Your task to perform on an android device: Clear the cart on walmart.com. Add "bose soundsport free" to the cart on walmart.com, then select checkout. Image 0: 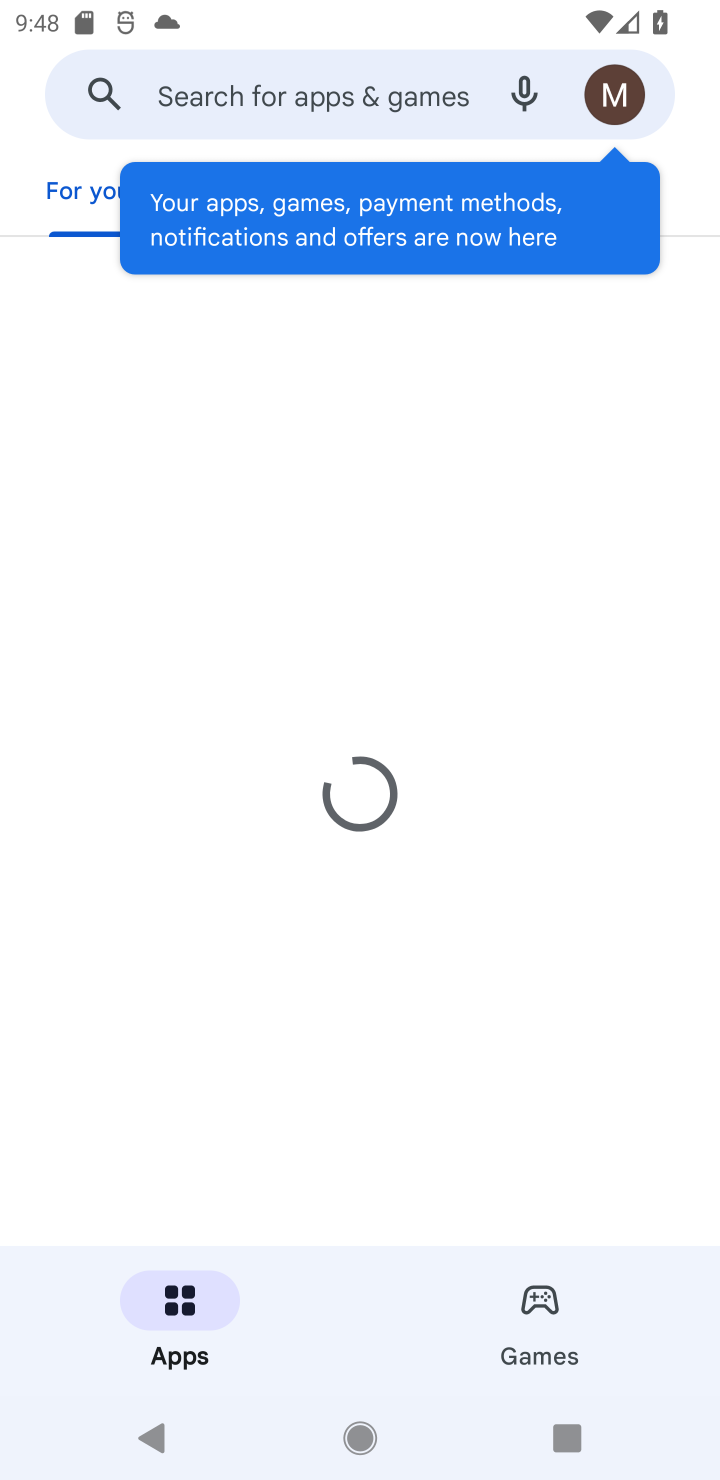
Step 0: press home button
Your task to perform on an android device: Clear the cart on walmart.com. Add "bose soundsport free" to the cart on walmart.com, then select checkout. Image 1: 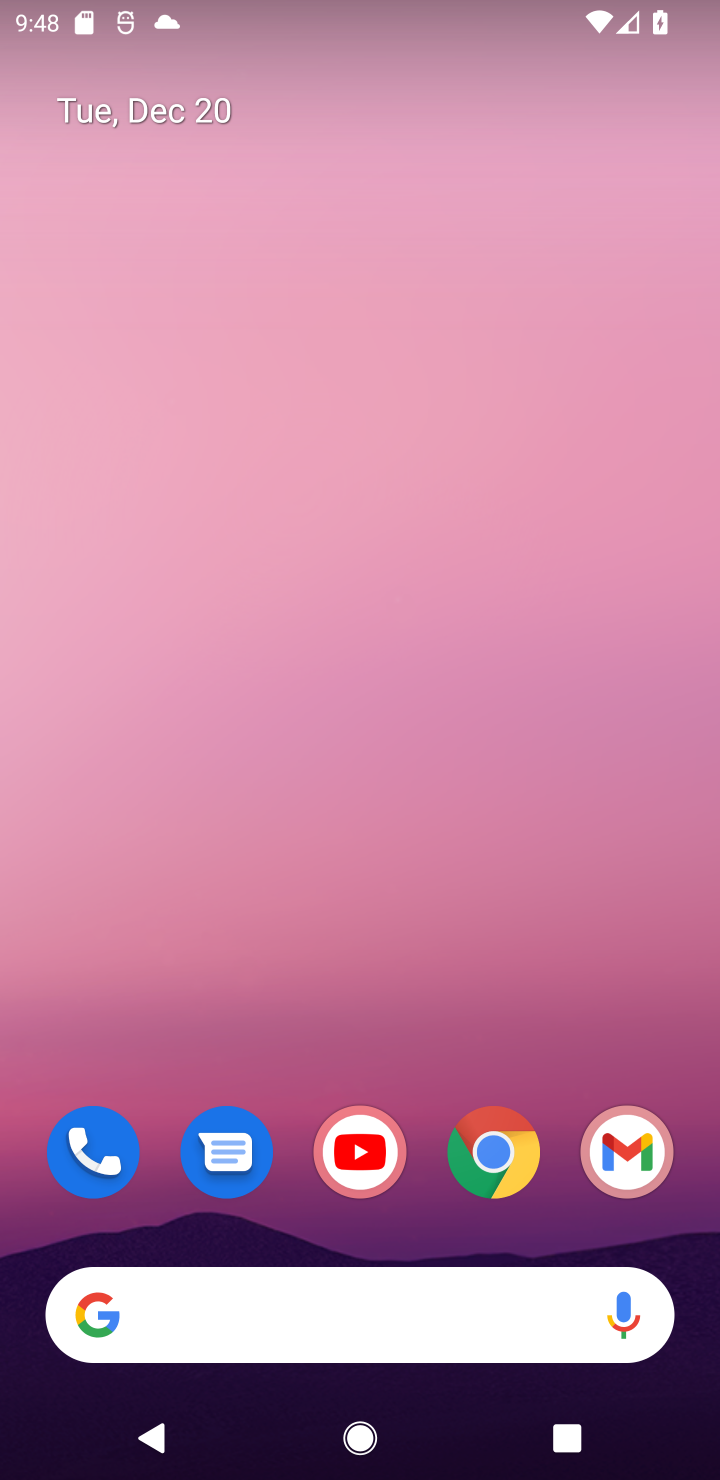
Step 1: click (495, 1130)
Your task to perform on an android device: Clear the cart on walmart.com. Add "bose soundsport free" to the cart on walmart.com, then select checkout. Image 2: 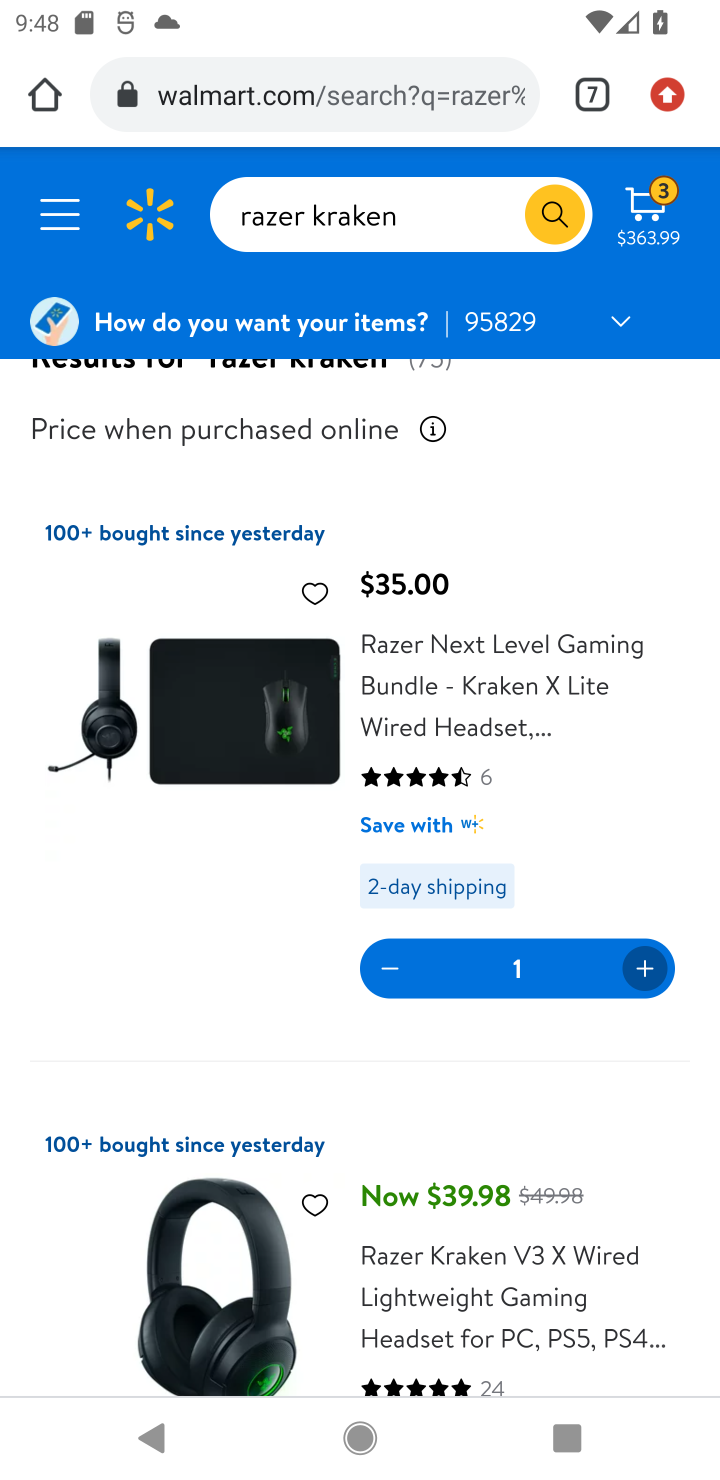
Step 2: click (666, 204)
Your task to perform on an android device: Clear the cart on walmart.com. Add "bose soundsport free" to the cart on walmart.com, then select checkout. Image 3: 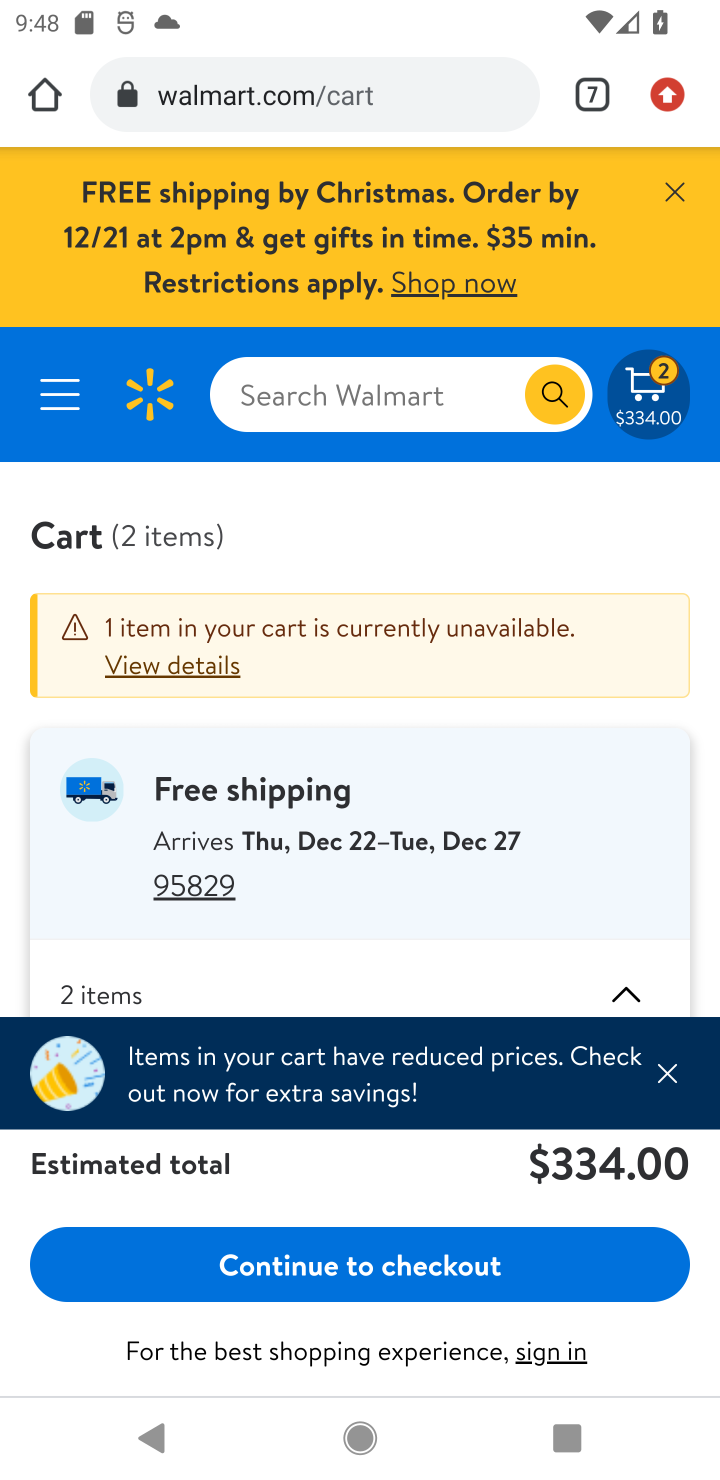
Step 3: click (667, 1079)
Your task to perform on an android device: Clear the cart on walmart.com. Add "bose soundsport free" to the cart on walmart.com, then select checkout. Image 4: 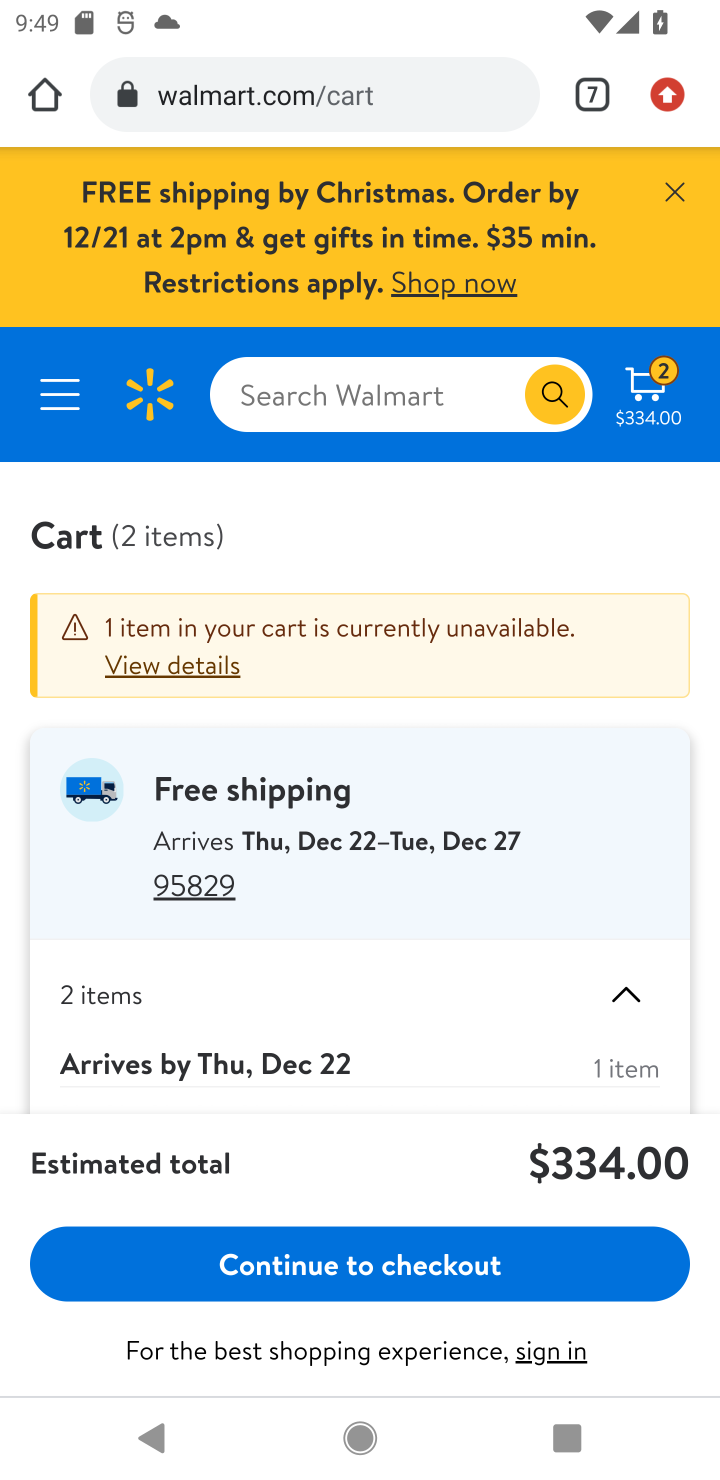
Step 4: drag from (307, 1025) to (221, 547)
Your task to perform on an android device: Clear the cart on walmart.com. Add "bose soundsport free" to the cart on walmart.com, then select checkout. Image 5: 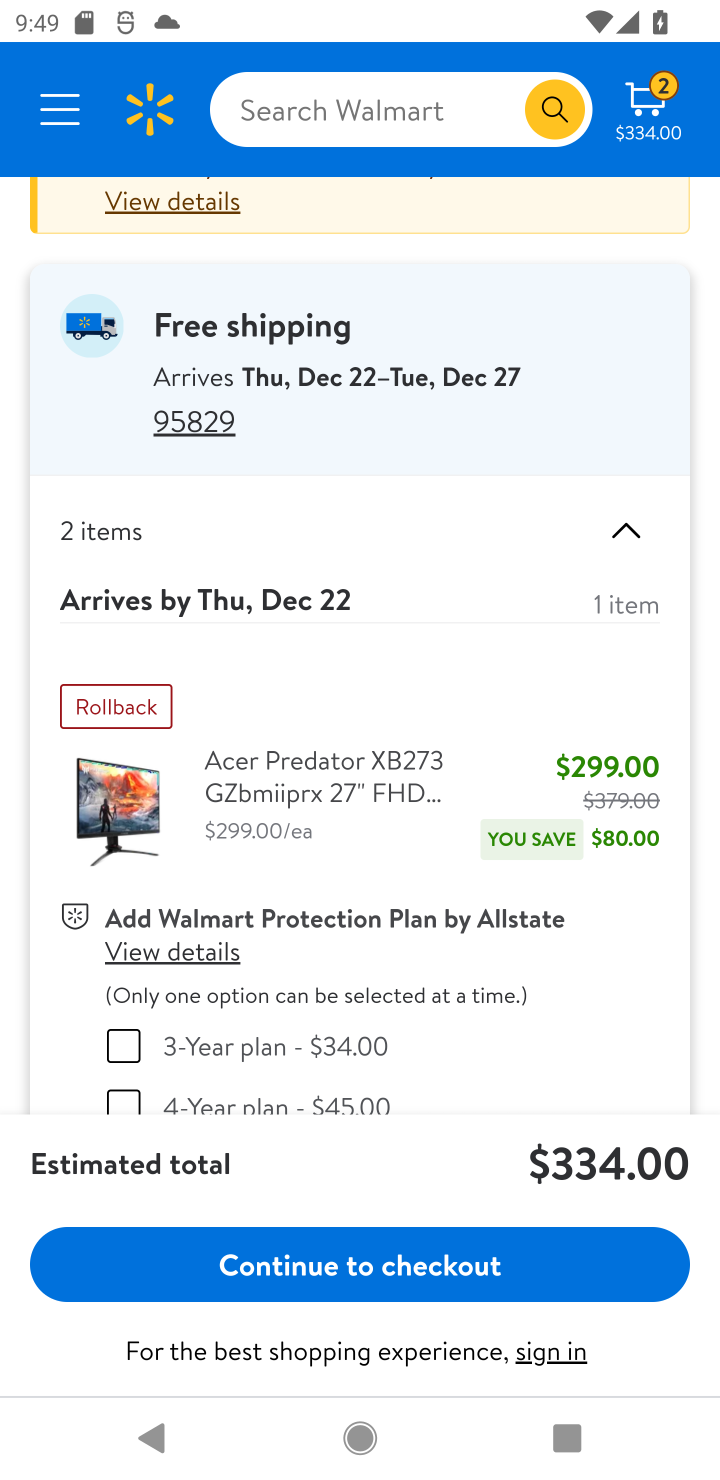
Step 5: drag from (317, 906) to (510, 5)
Your task to perform on an android device: Clear the cart on walmart.com. Add "bose soundsport free" to the cart on walmart.com, then select checkout. Image 6: 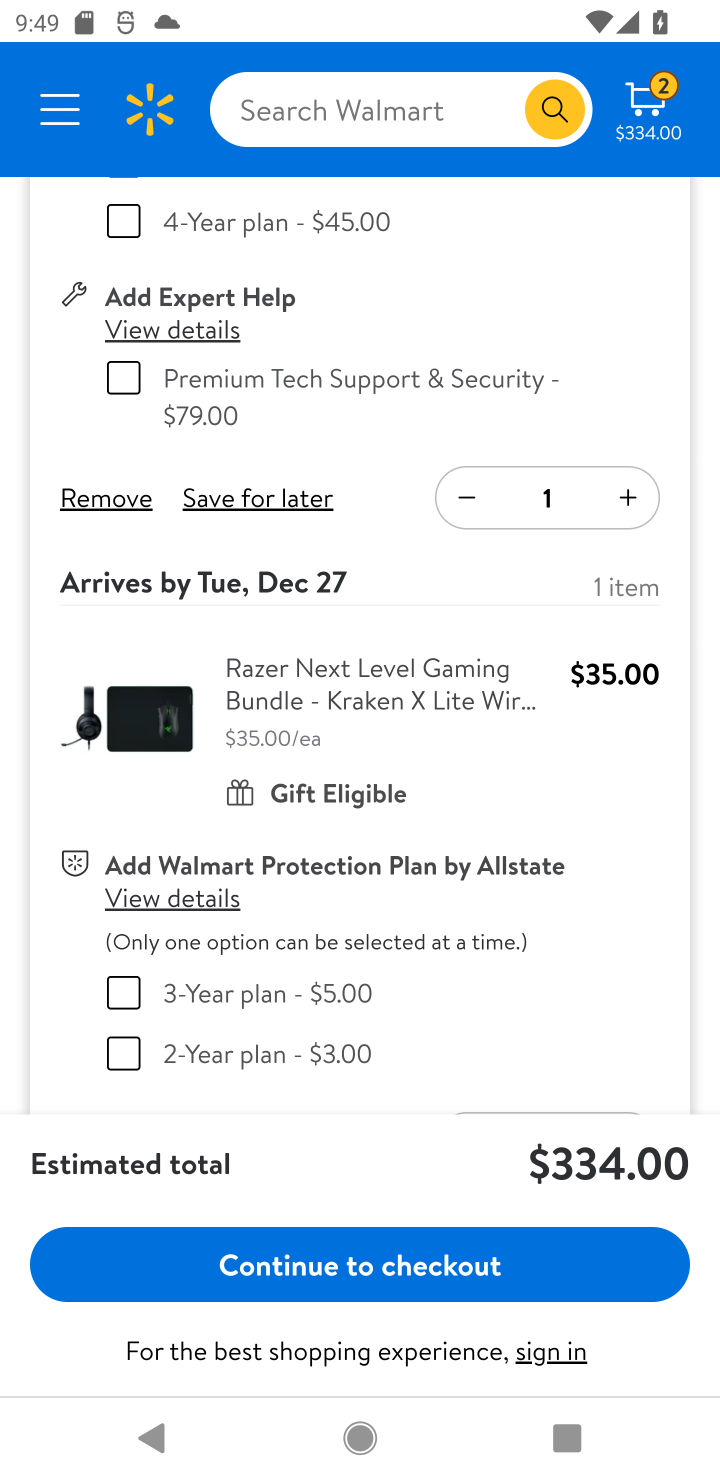
Step 6: click (99, 497)
Your task to perform on an android device: Clear the cart on walmart.com. Add "bose soundsport free" to the cart on walmart.com, then select checkout. Image 7: 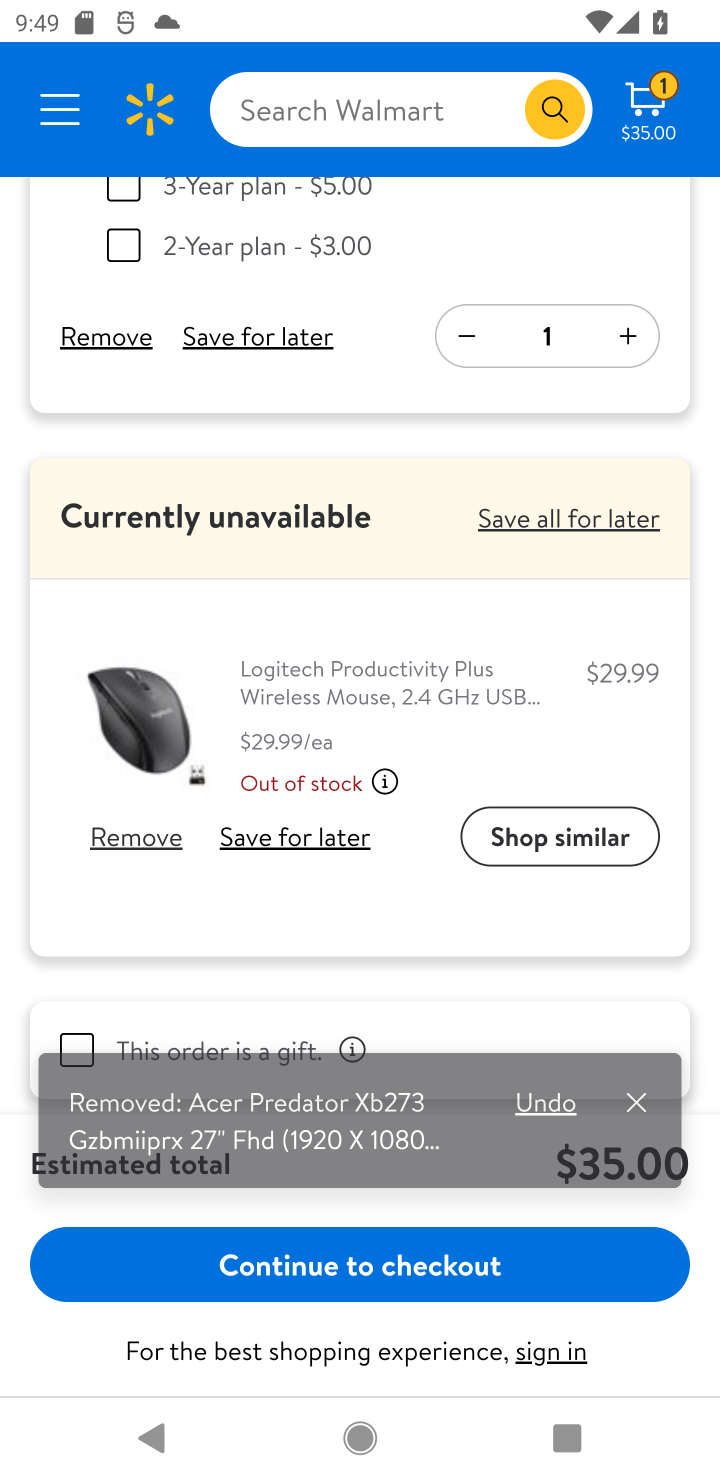
Step 7: click (99, 331)
Your task to perform on an android device: Clear the cart on walmart.com. Add "bose soundsport free" to the cart on walmart.com, then select checkout. Image 8: 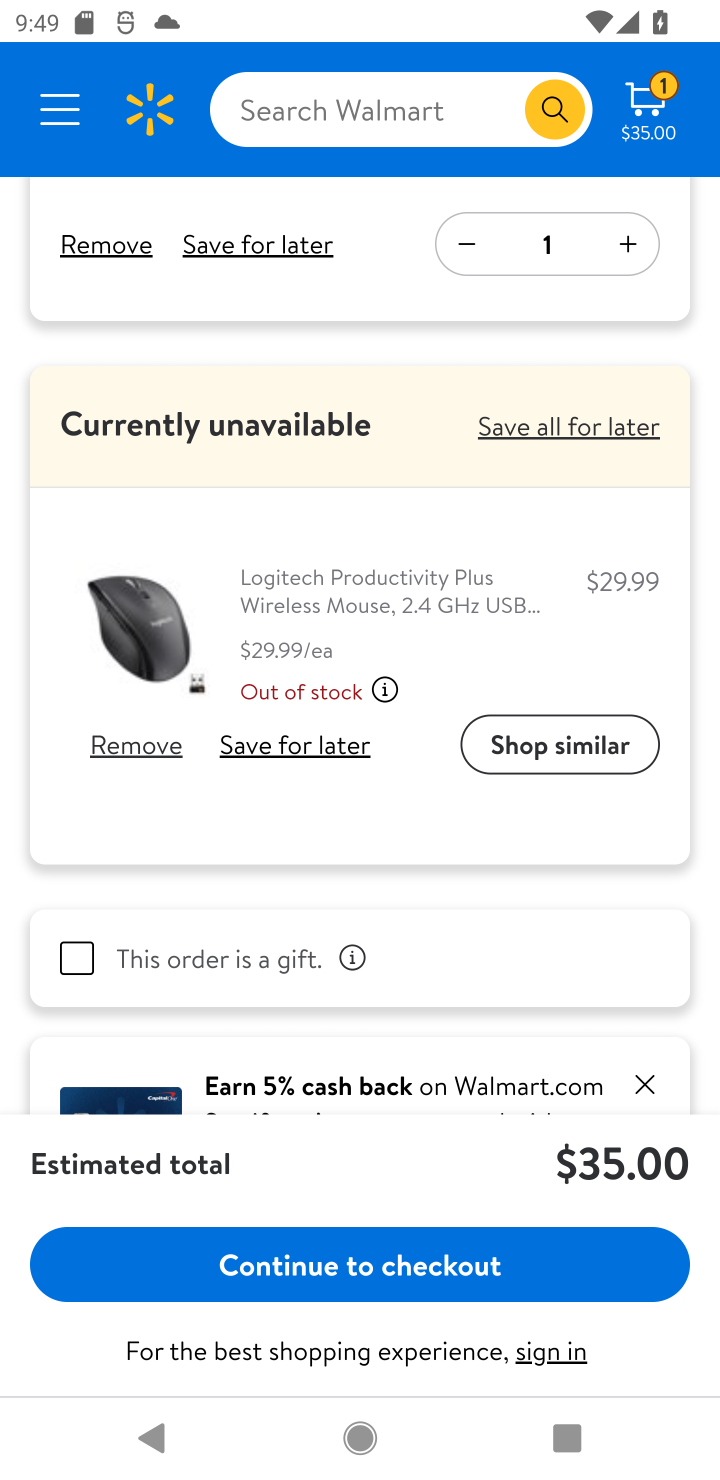
Step 8: click (113, 244)
Your task to perform on an android device: Clear the cart on walmart.com. Add "bose soundsport free" to the cart on walmart.com, then select checkout. Image 9: 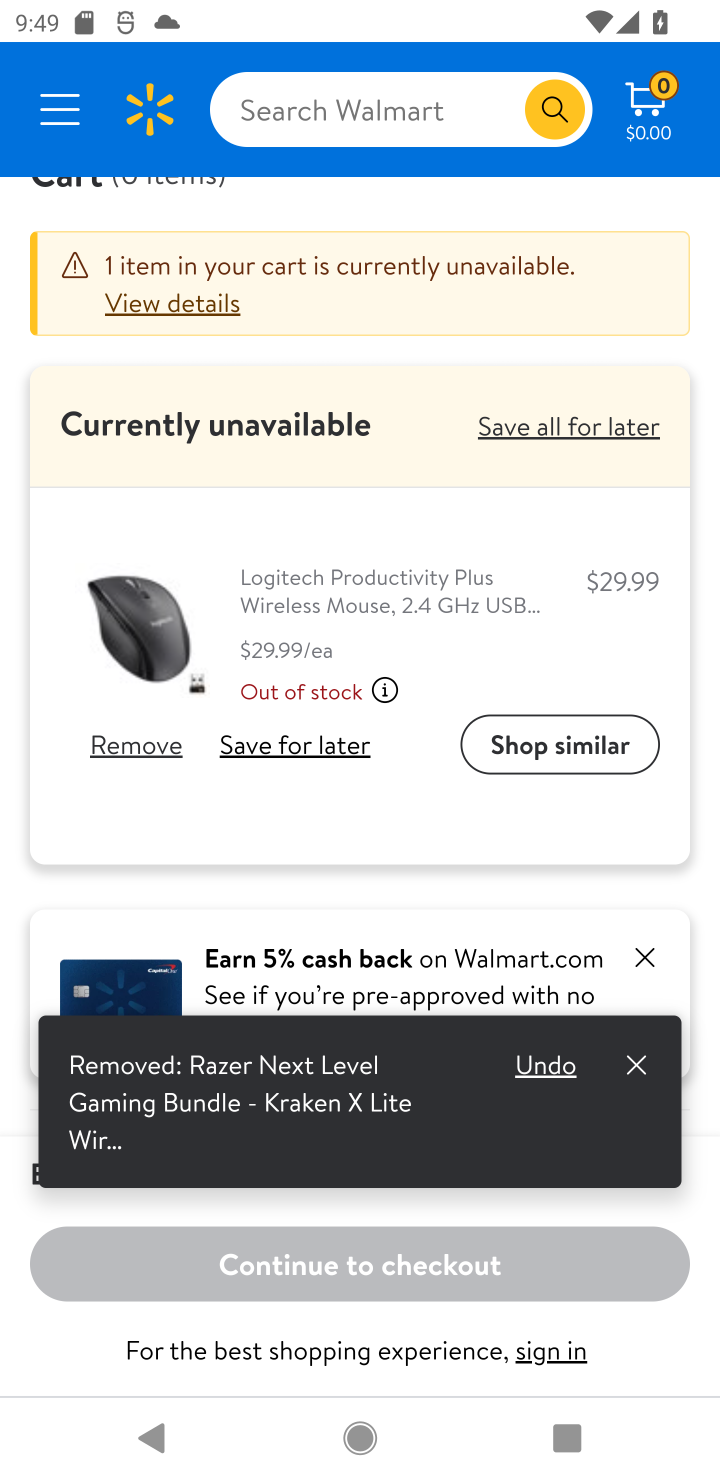
Step 9: click (103, 746)
Your task to perform on an android device: Clear the cart on walmart.com. Add "bose soundsport free" to the cart on walmart.com, then select checkout. Image 10: 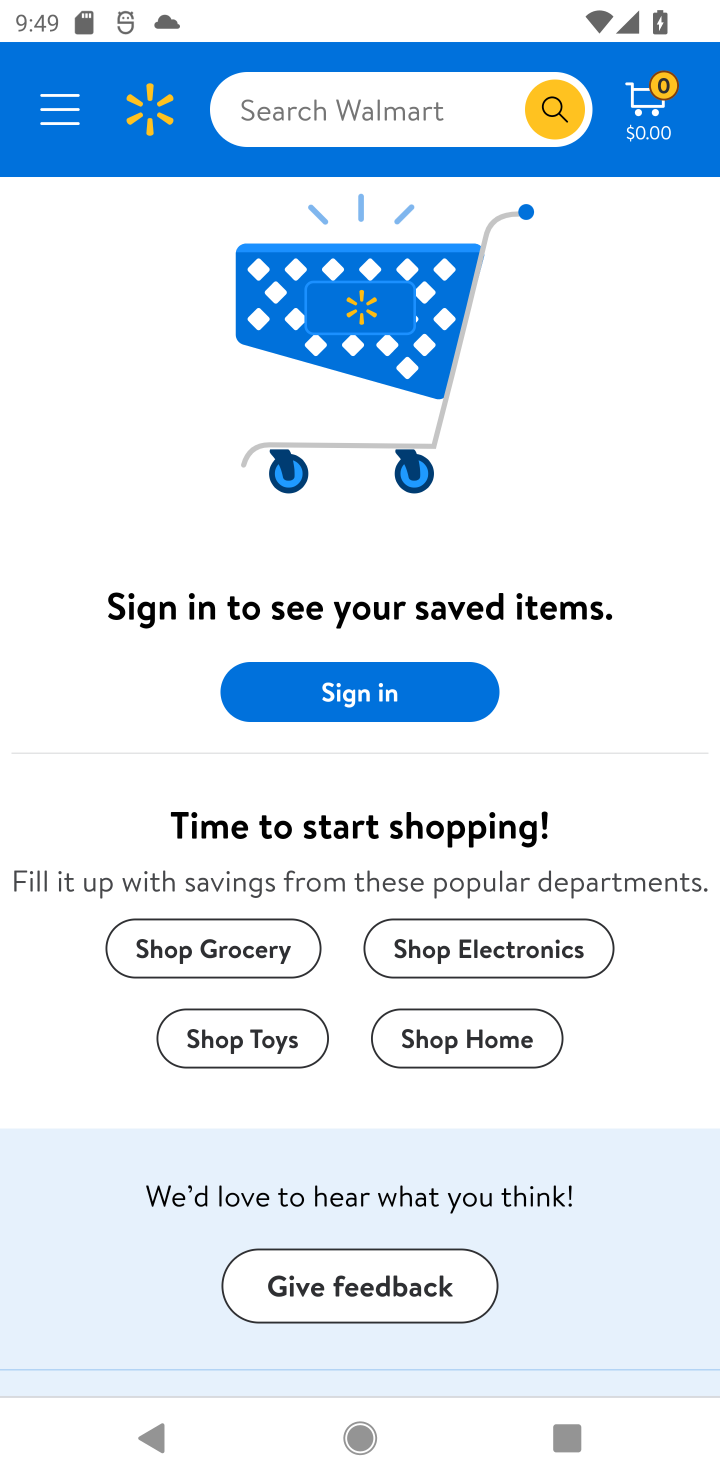
Step 10: click (306, 131)
Your task to perform on an android device: Clear the cart on walmart.com. Add "bose soundsport free" to the cart on walmart.com, then select checkout. Image 11: 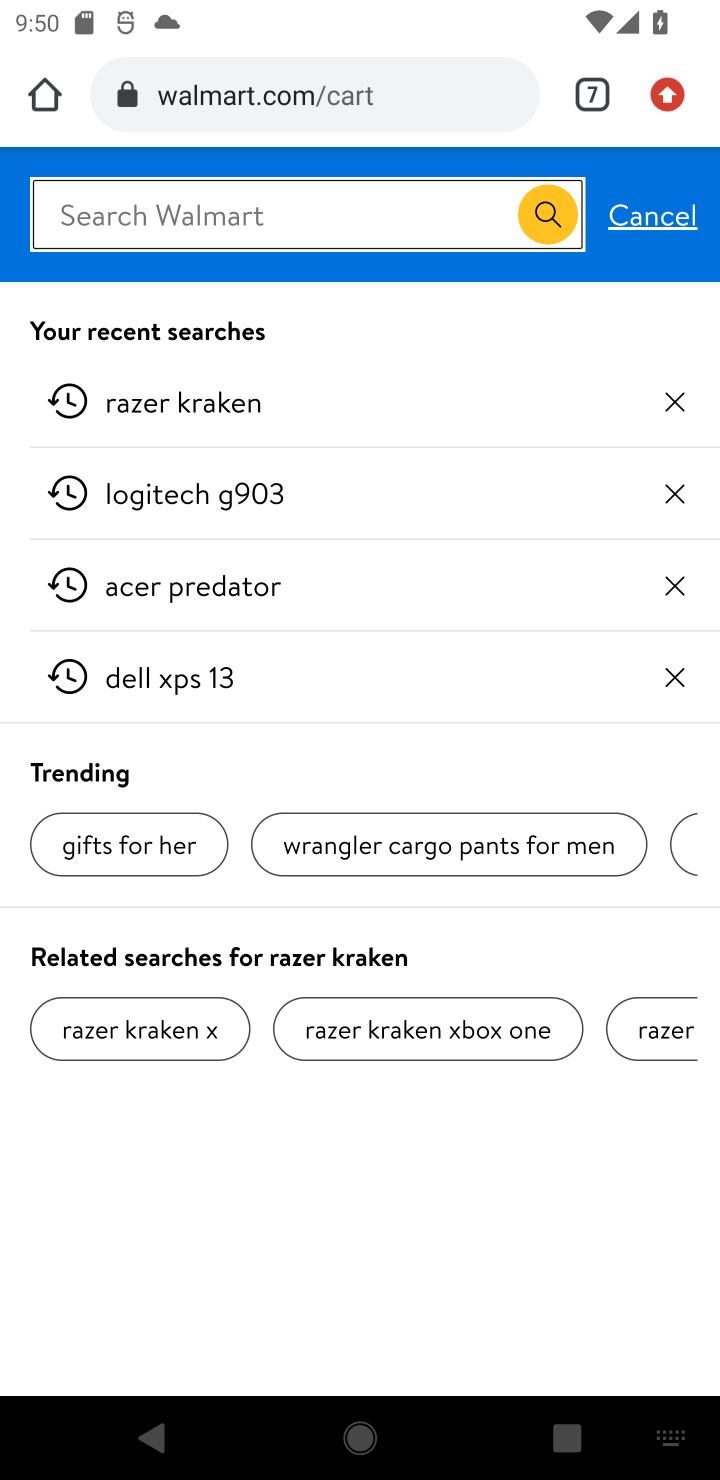
Step 11: type "bose soundsport free"
Your task to perform on an android device: Clear the cart on walmart.com. Add "bose soundsport free" to the cart on walmart.com, then select checkout. Image 12: 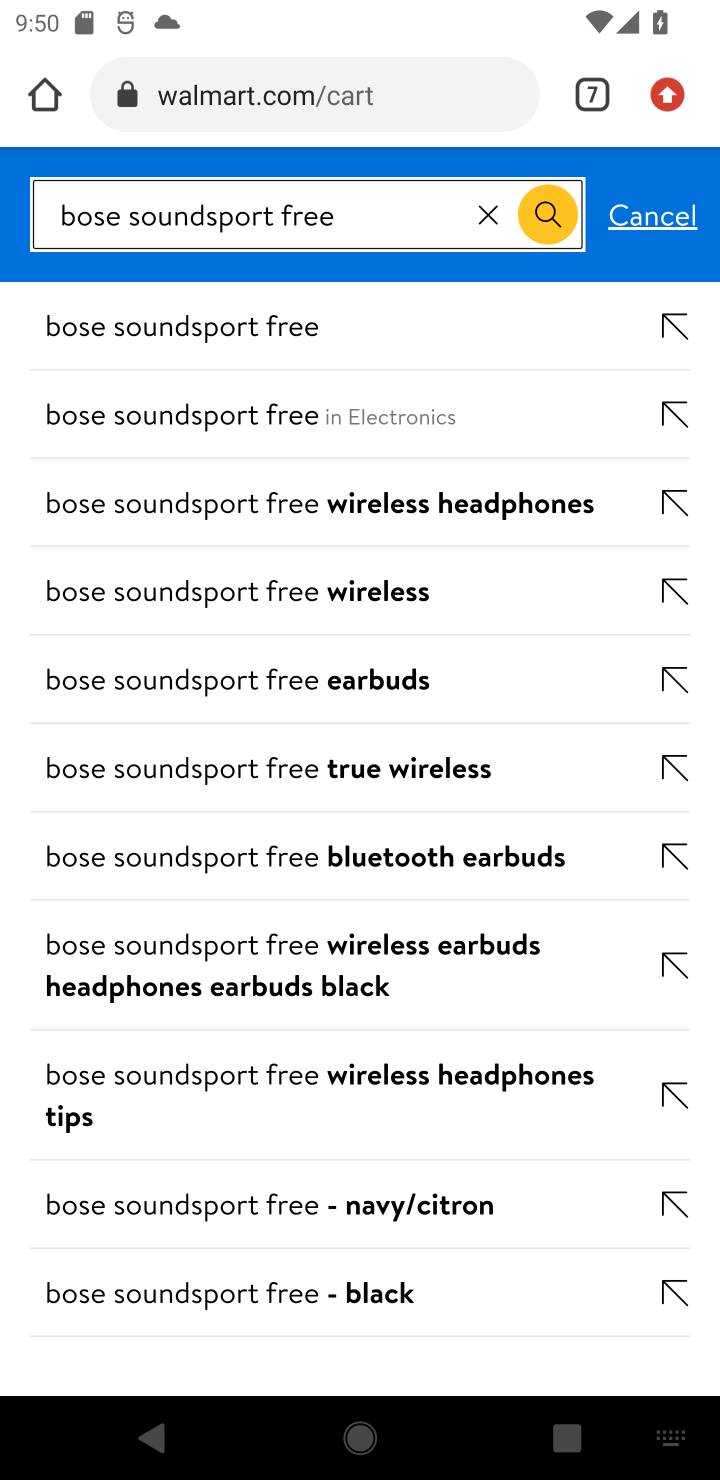
Step 12: click (125, 405)
Your task to perform on an android device: Clear the cart on walmart.com. Add "bose soundsport free" to the cart on walmart.com, then select checkout. Image 13: 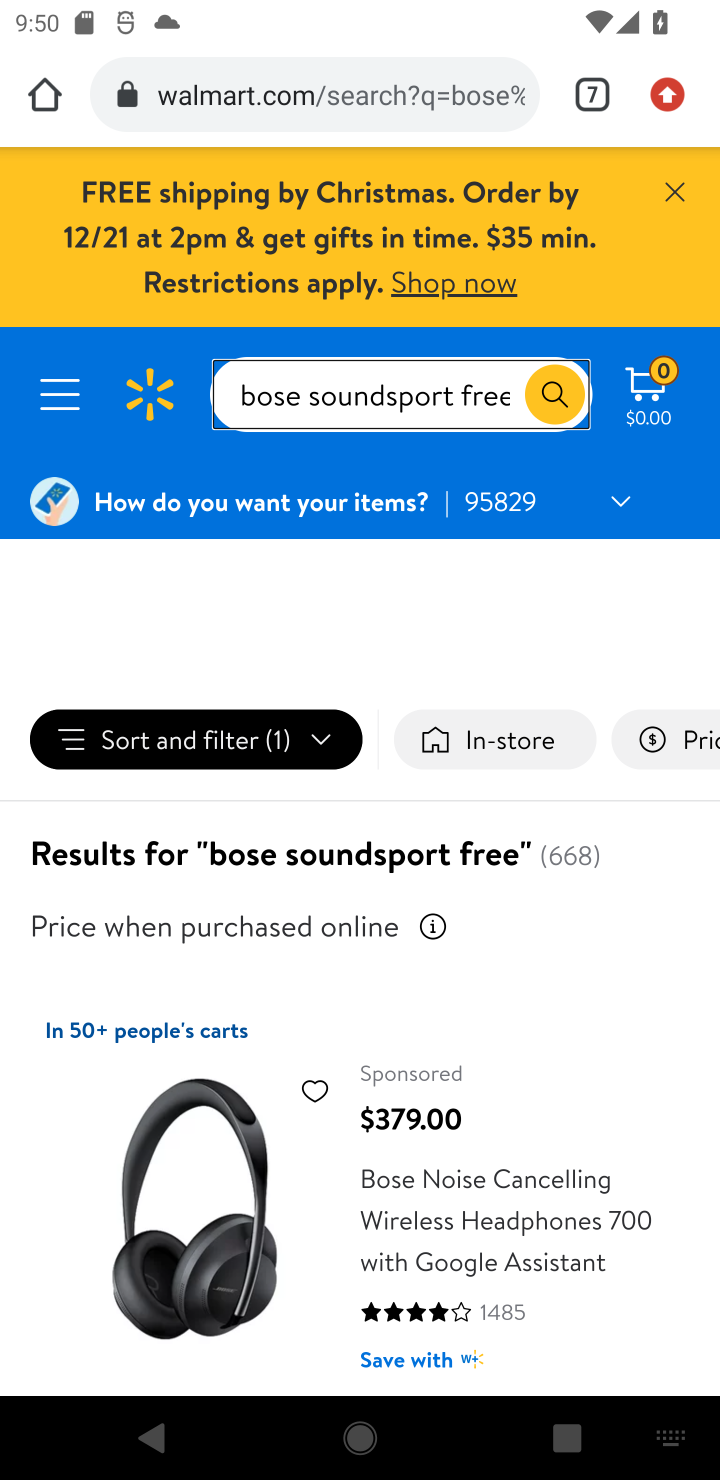
Step 13: drag from (578, 1150) to (627, 598)
Your task to perform on an android device: Clear the cart on walmart.com. Add "bose soundsport free" to the cart on walmart.com, then select checkout. Image 14: 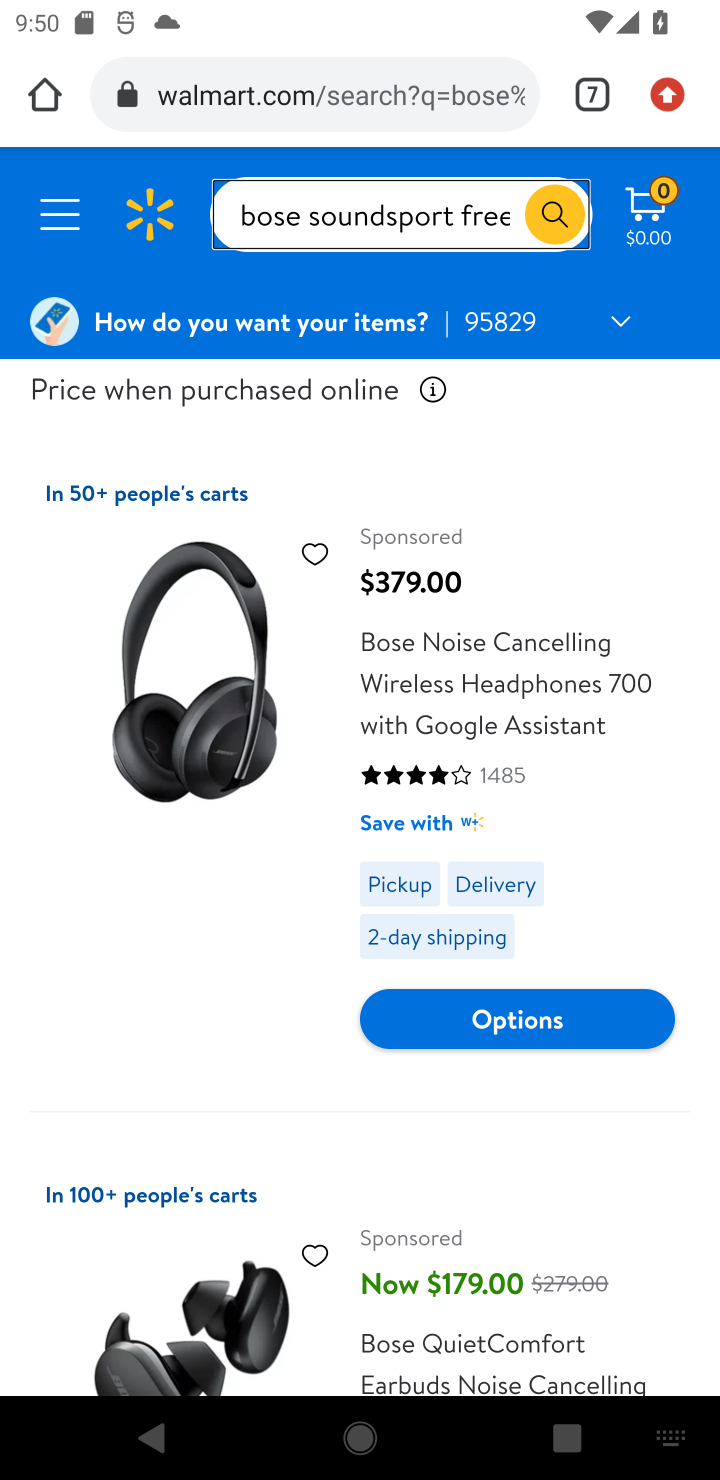
Step 14: drag from (436, 1197) to (613, 453)
Your task to perform on an android device: Clear the cart on walmart.com. Add "bose soundsport free" to the cart on walmart.com, then select checkout. Image 15: 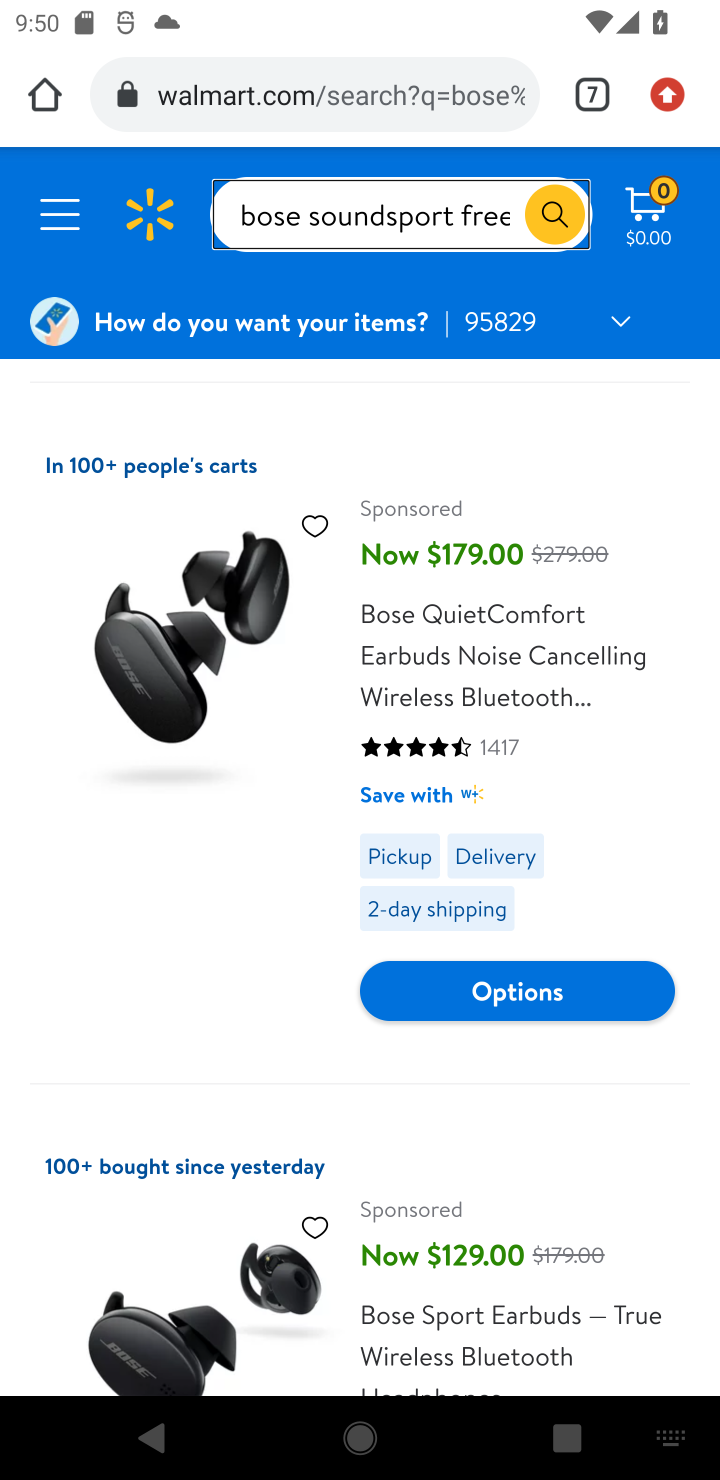
Step 15: drag from (598, 1129) to (663, 495)
Your task to perform on an android device: Clear the cart on walmart.com. Add "bose soundsport free" to the cart on walmart.com, then select checkout. Image 16: 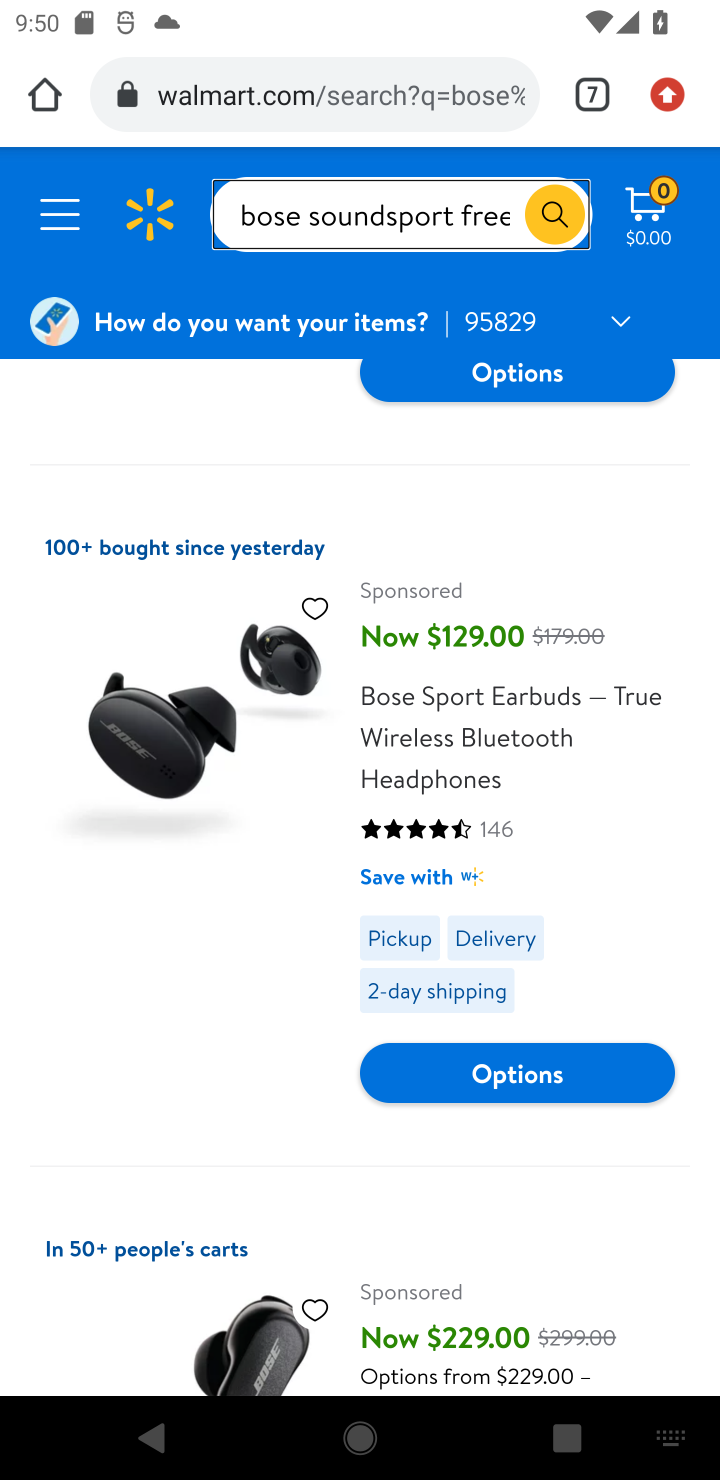
Step 16: drag from (472, 1245) to (605, 703)
Your task to perform on an android device: Clear the cart on walmart.com. Add "bose soundsport free" to the cart on walmart.com, then select checkout. Image 17: 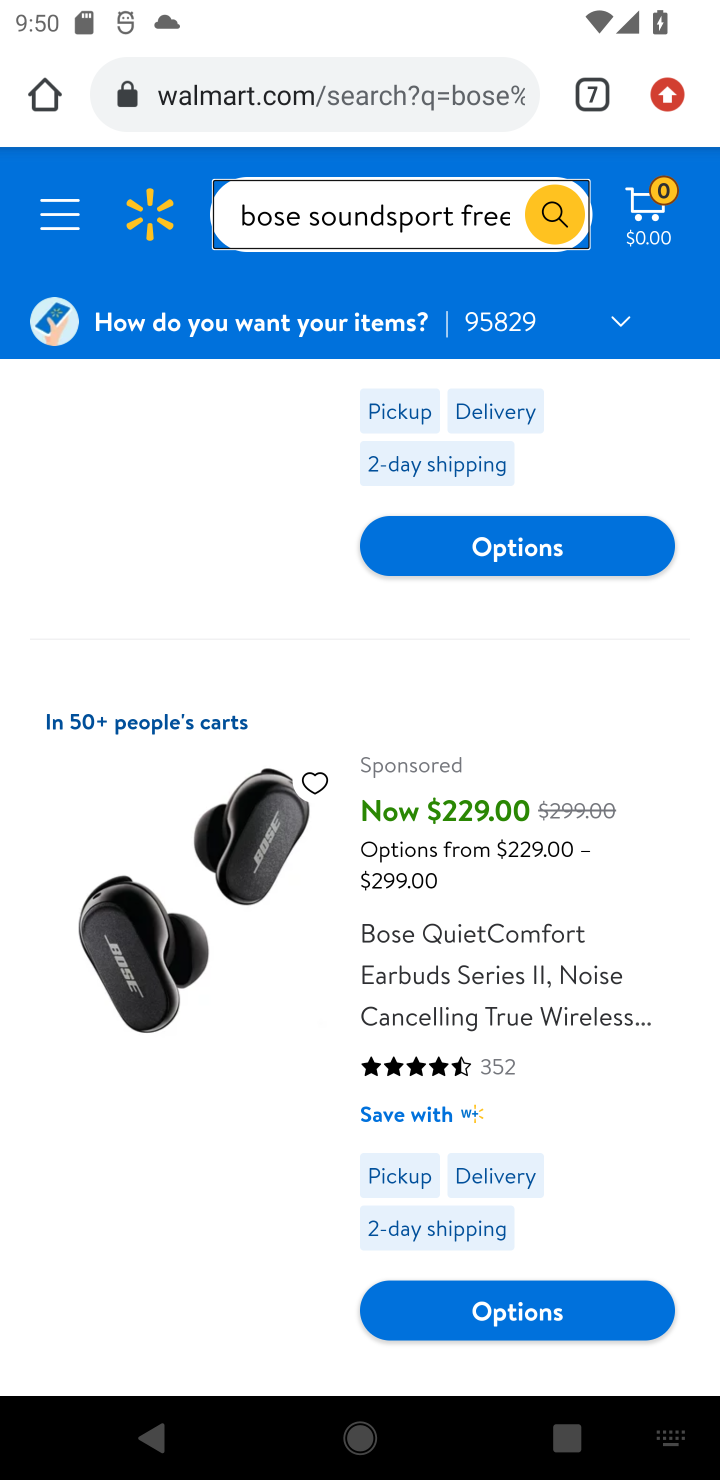
Step 17: drag from (573, 1120) to (698, 422)
Your task to perform on an android device: Clear the cart on walmart.com. Add "bose soundsport free" to the cart on walmart.com, then select checkout. Image 18: 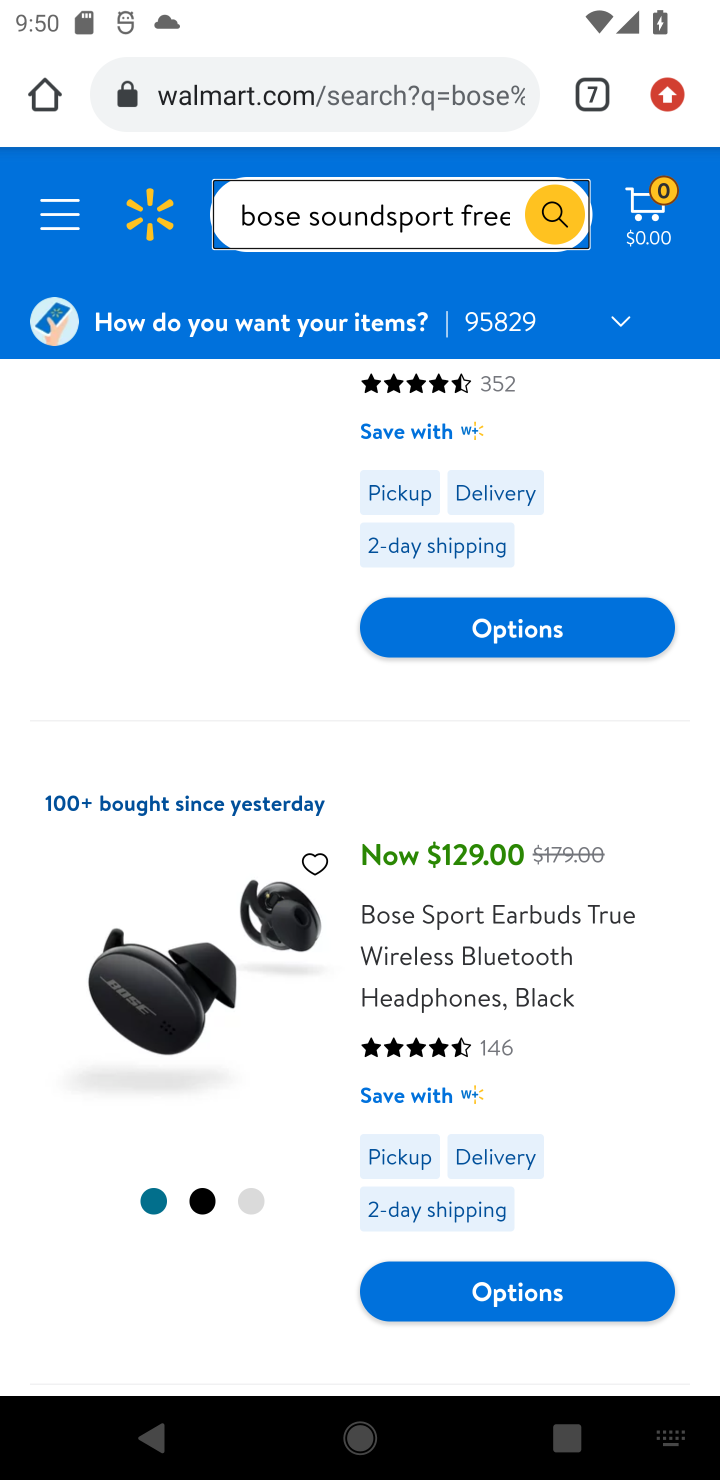
Step 18: click (473, 947)
Your task to perform on an android device: Clear the cart on walmart.com. Add "bose soundsport free" to the cart on walmart.com, then select checkout. Image 19: 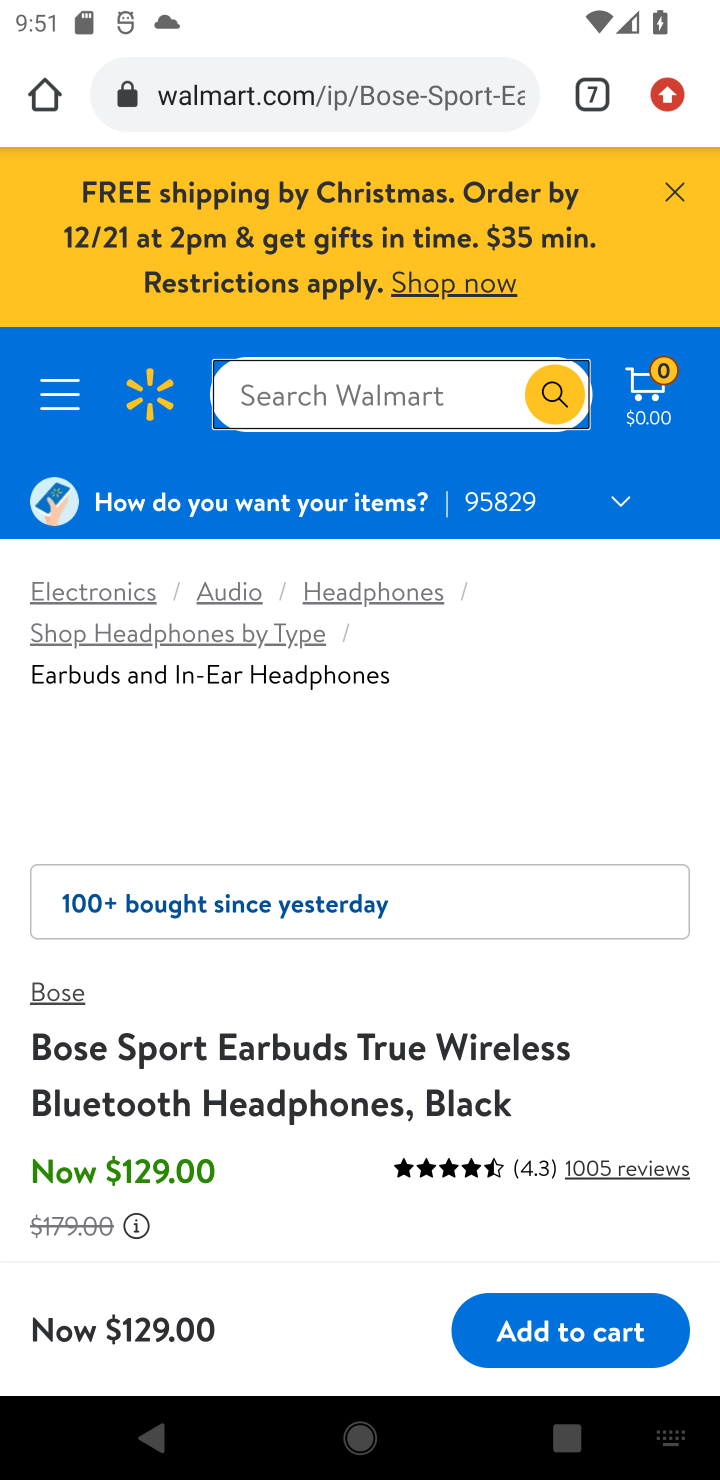
Step 19: click (550, 1316)
Your task to perform on an android device: Clear the cart on walmart.com. Add "bose soundsport free" to the cart on walmart.com, then select checkout. Image 20: 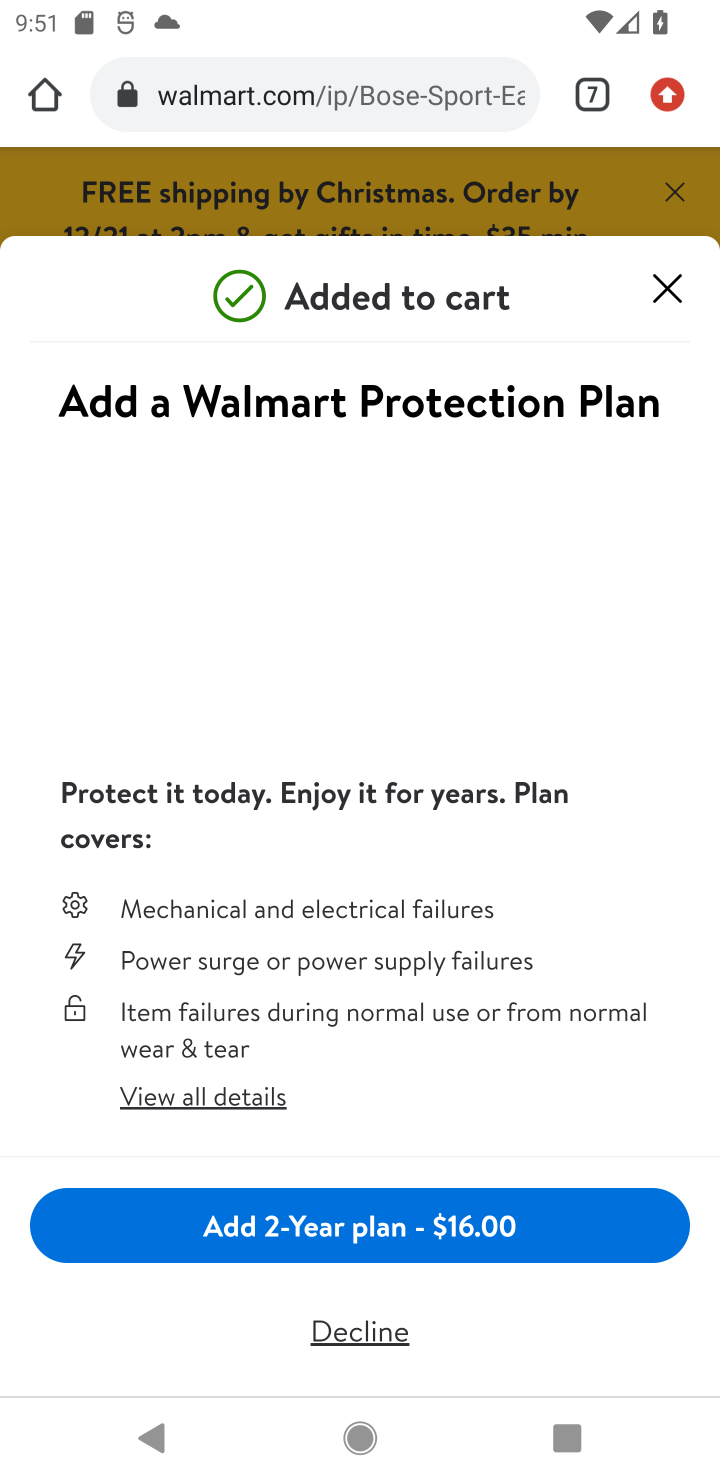
Step 20: task complete